Your task to perform on an android device: What's the weather going to be this weekend? Image 0: 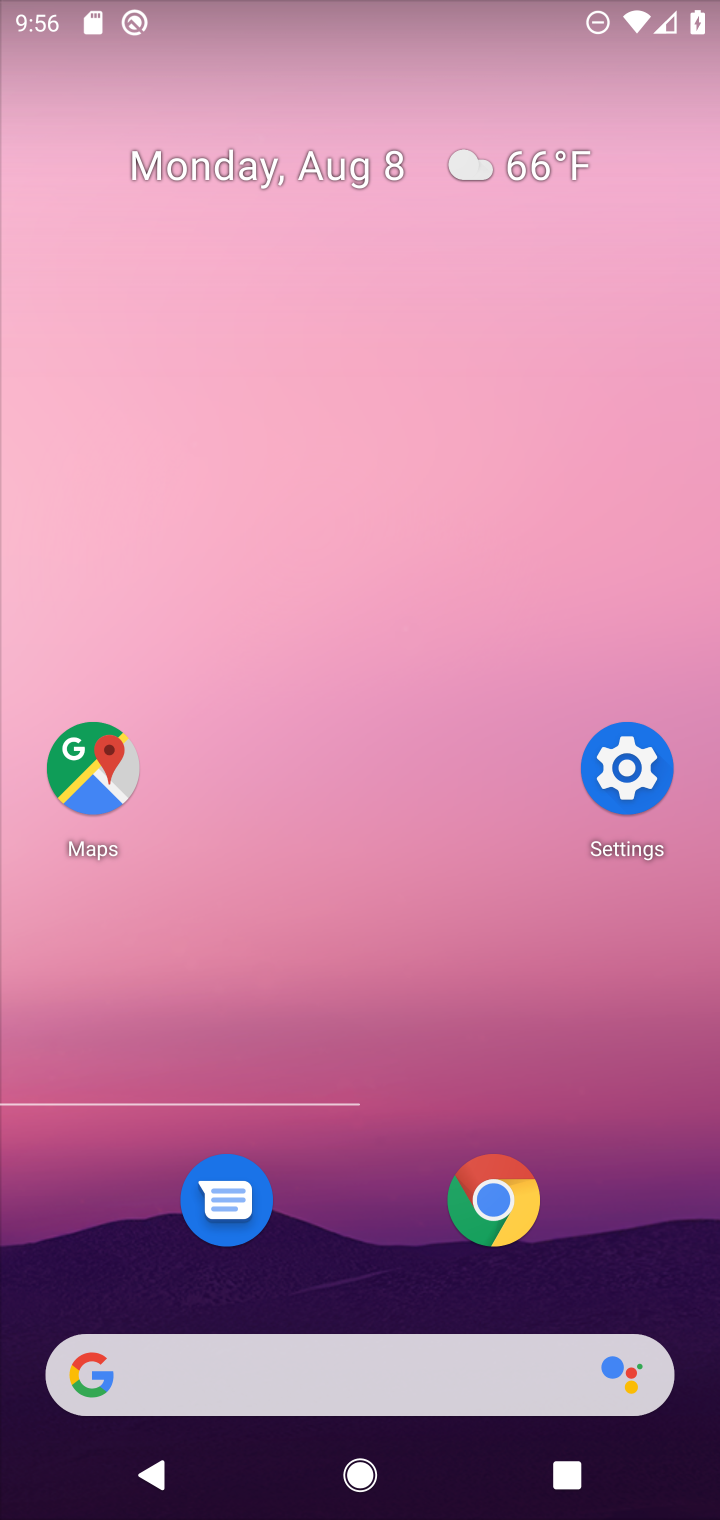
Step 0: press home button
Your task to perform on an android device: What's the weather going to be this weekend? Image 1: 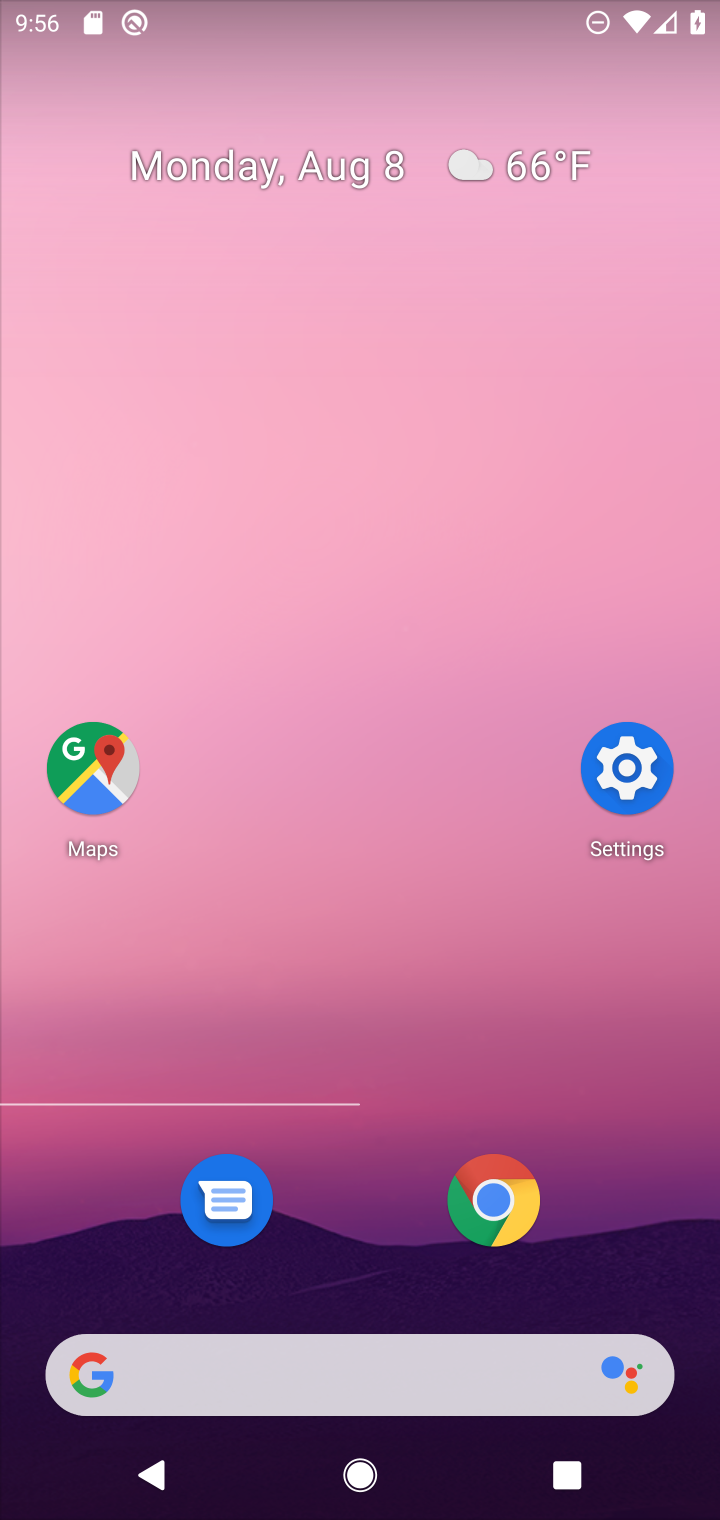
Step 1: click (260, 1385)
Your task to perform on an android device: What's the weather going to be this weekend? Image 2: 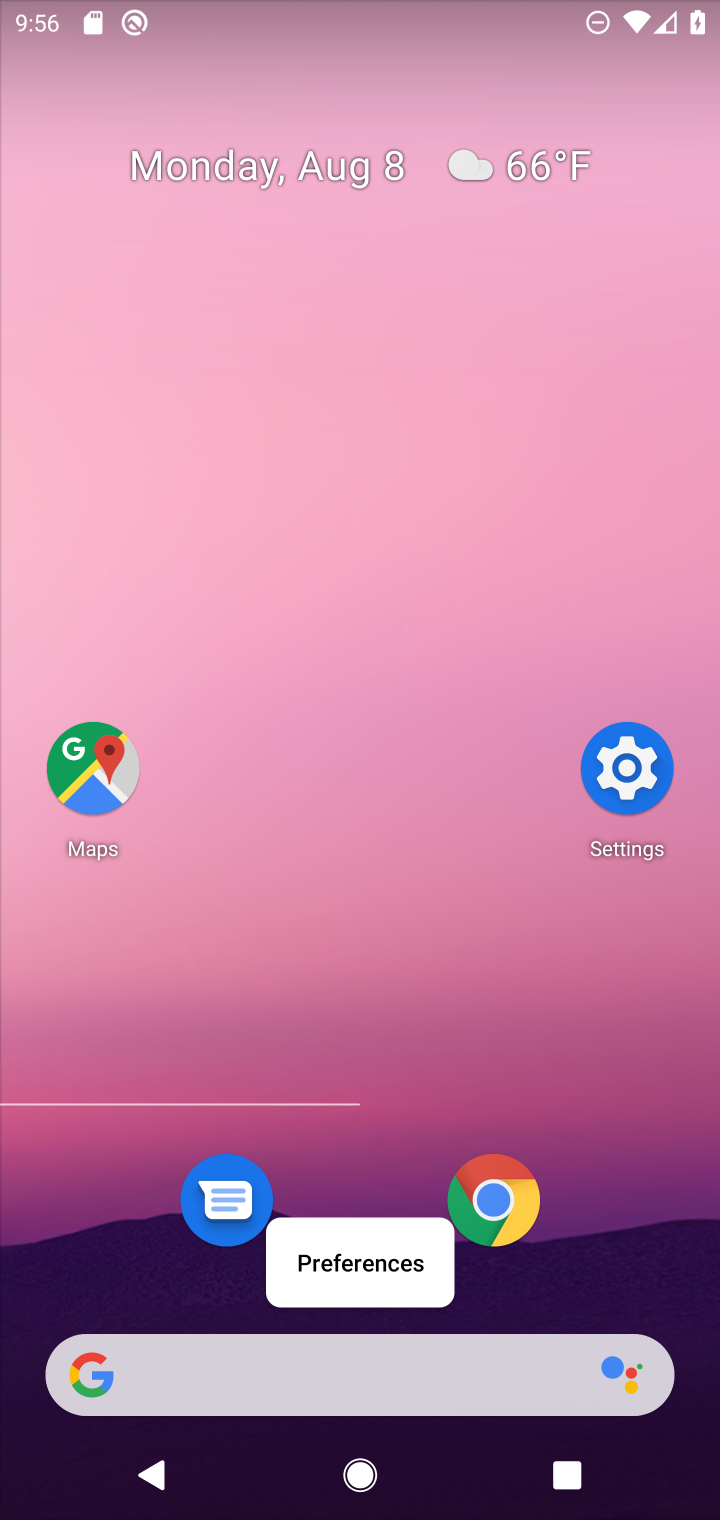
Step 2: click (238, 1374)
Your task to perform on an android device: What's the weather going to be this weekend? Image 3: 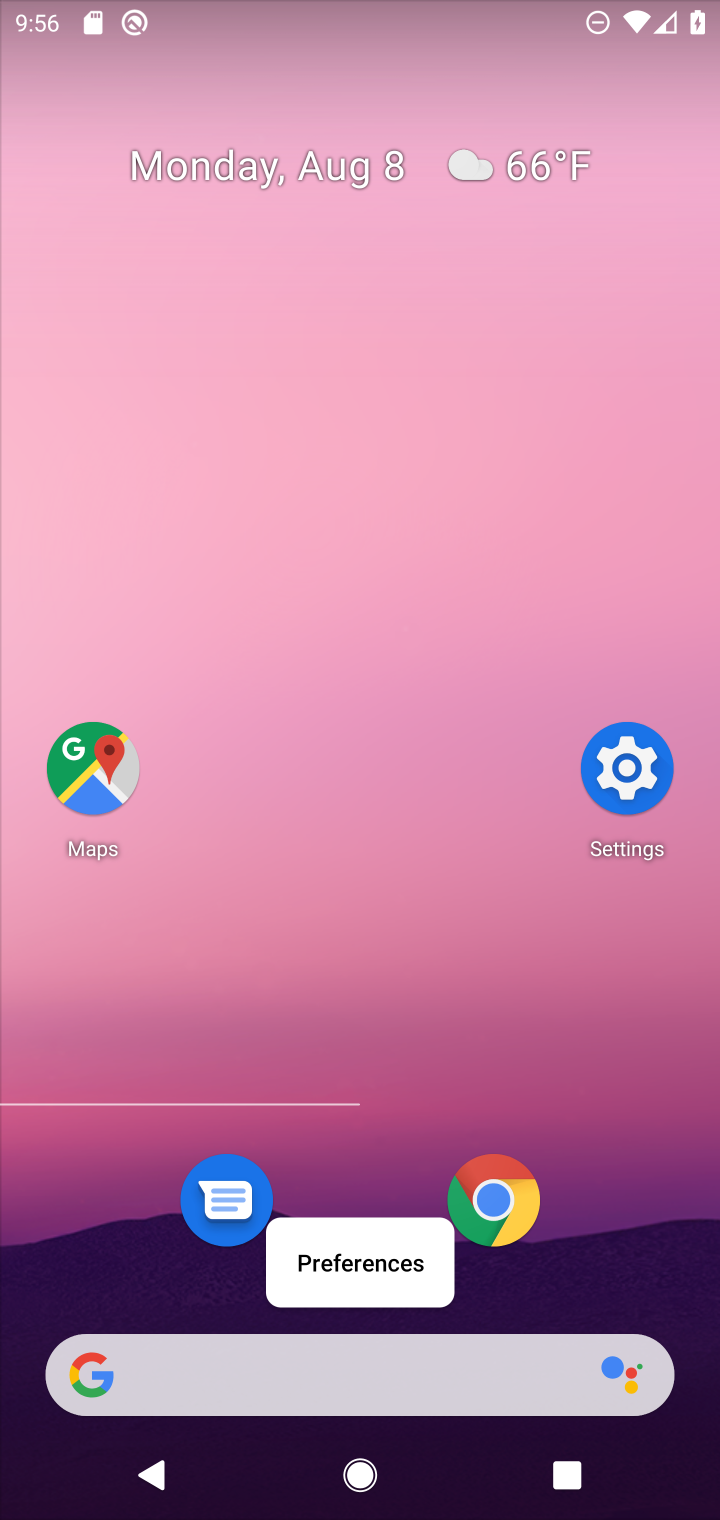
Step 3: click (229, 1363)
Your task to perform on an android device: What's the weather going to be this weekend? Image 4: 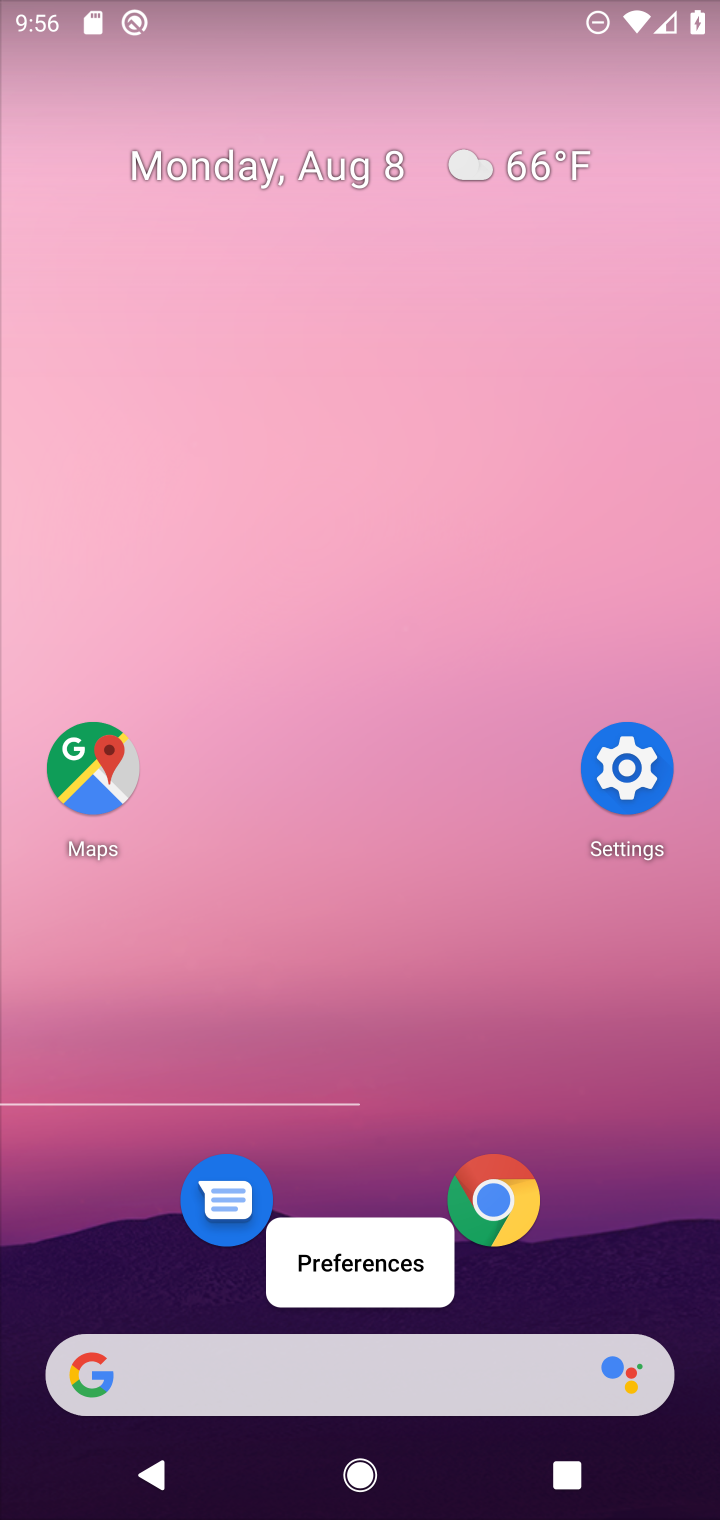
Step 4: click (299, 1359)
Your task to perform on an android device: What's the weather going to be this weekend? Image 5: 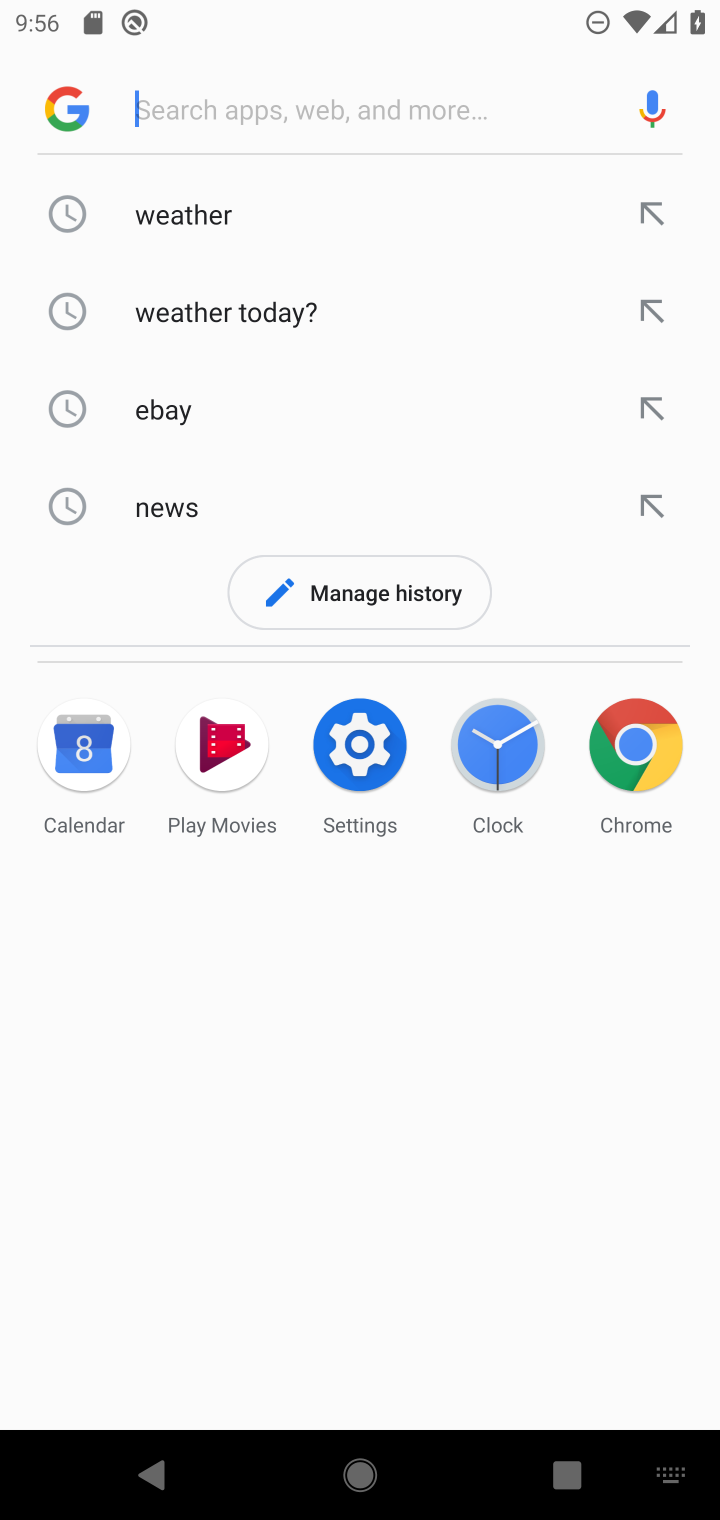
Step 5: click (191, 208)
Your task to perform on an android device: What's the weather going to be this weekend? Image 6: 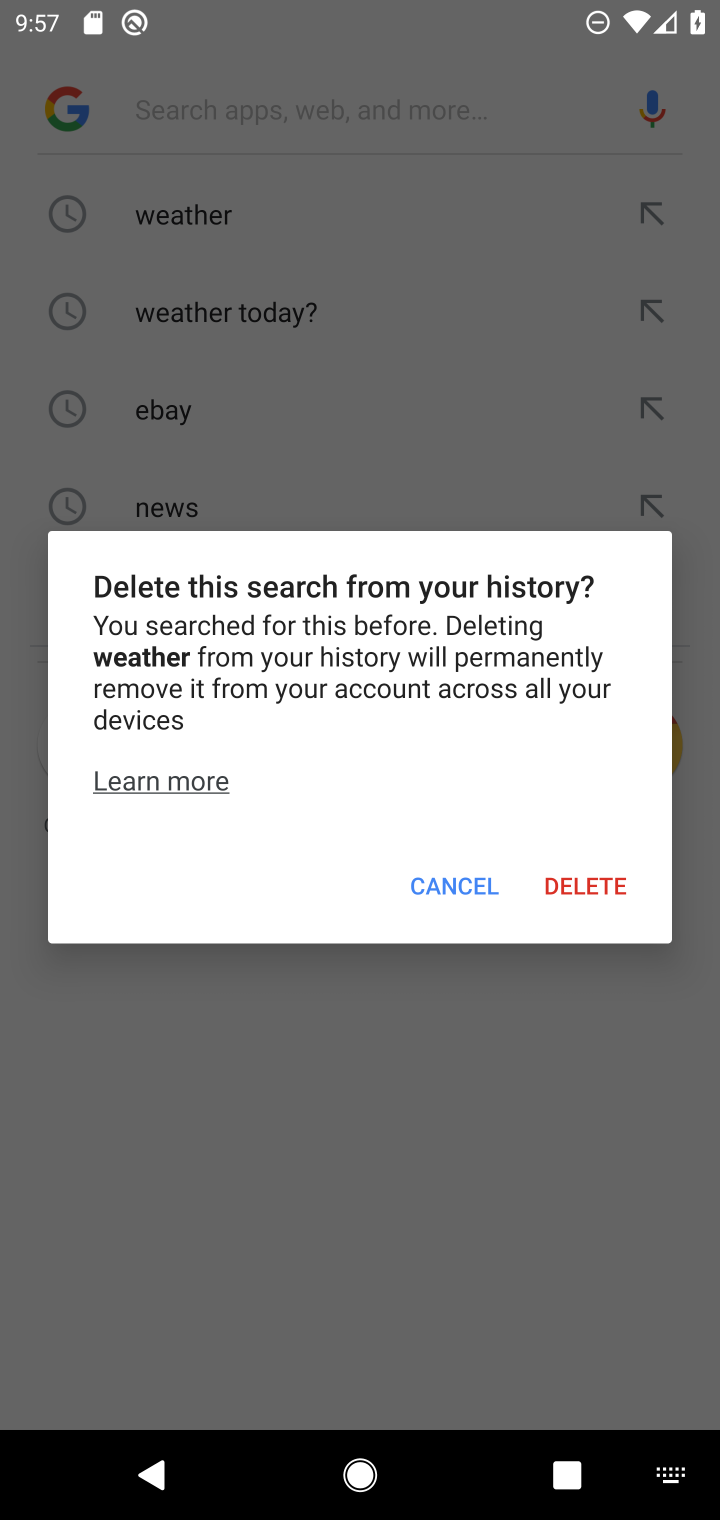
Step 6: click (415, 894)
Your task to perform on an android device: What's the weather going to be this weekend? Image 7: 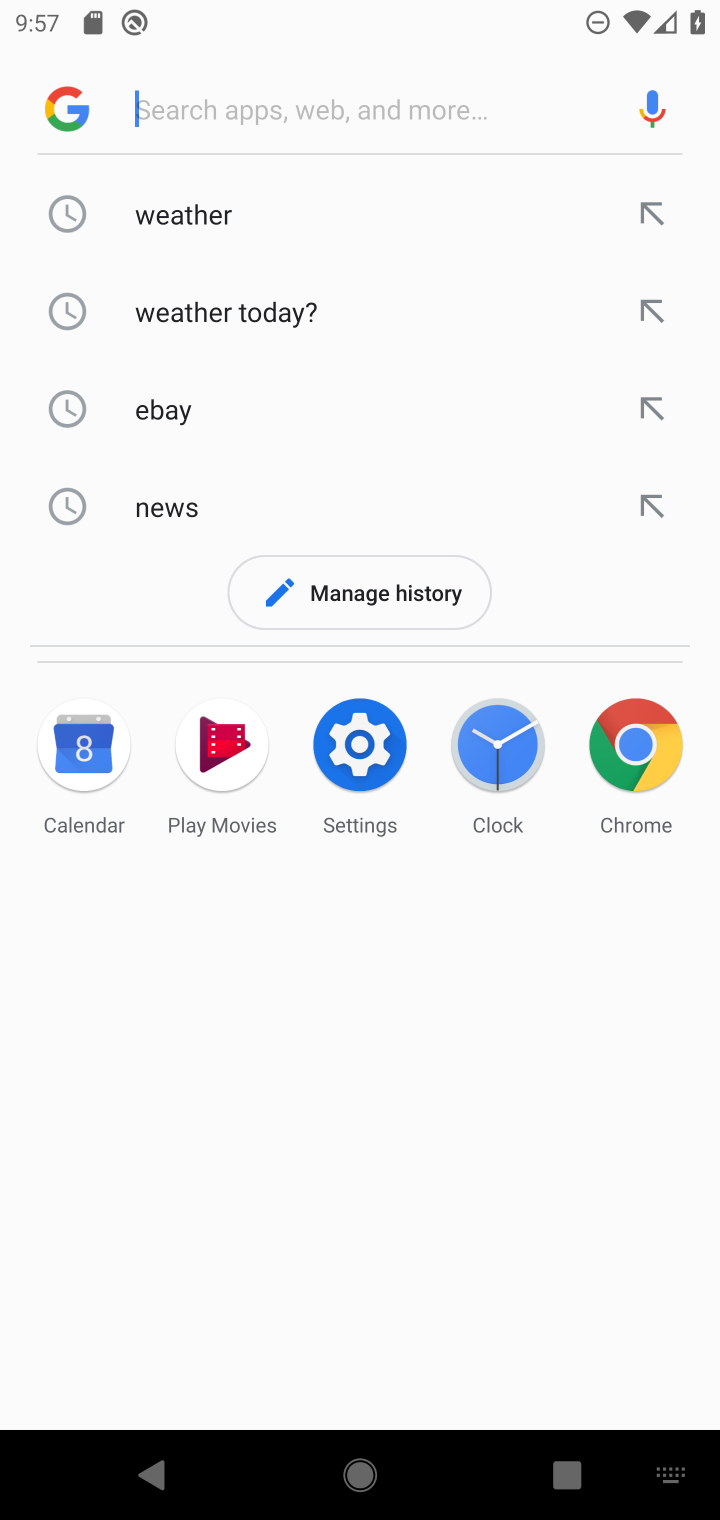
Step 7: click (654, 210)
Your task to perform on an android device: What's the weather going to be this weekend? Image 8: 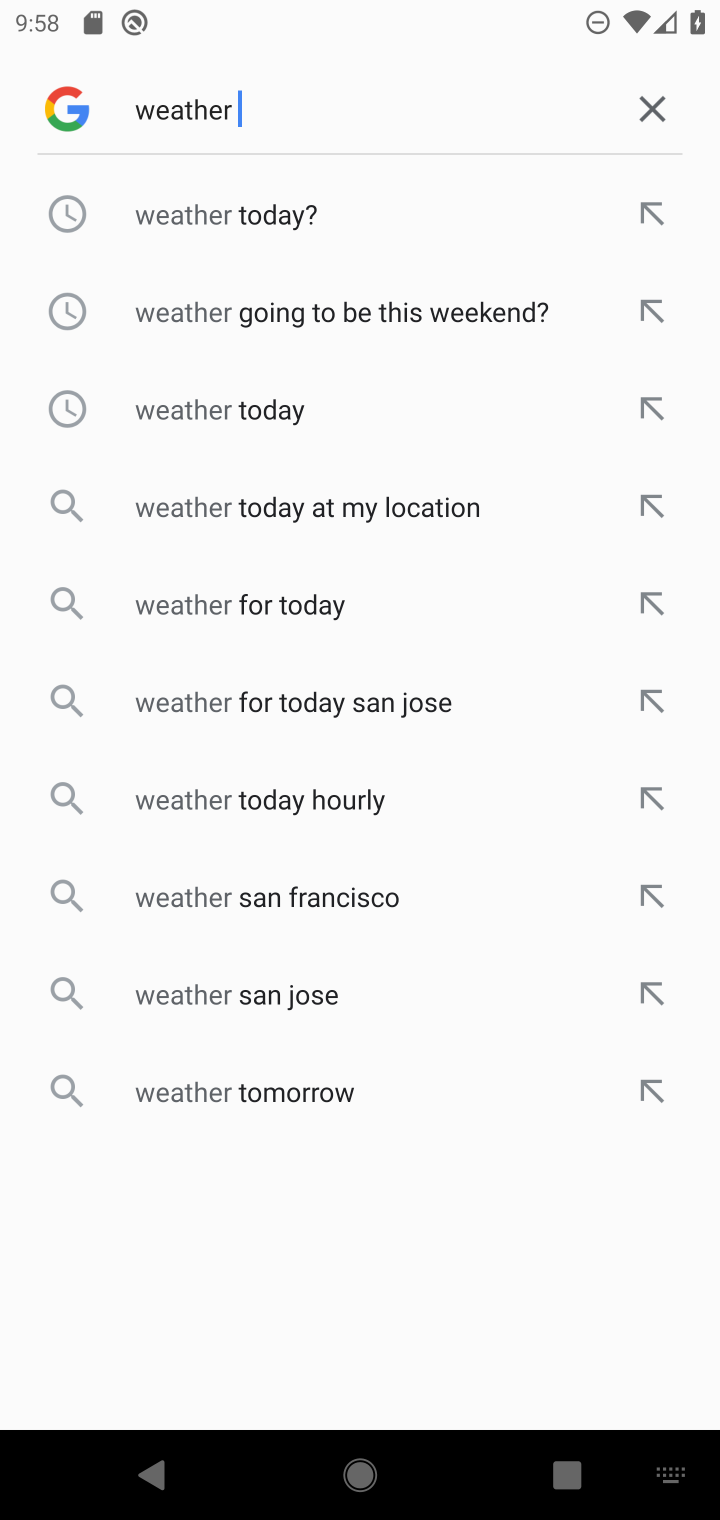
Step 8: click (648, 304)
Your task to perform on an android device: What's the weather going to be this weekend? Image 9: 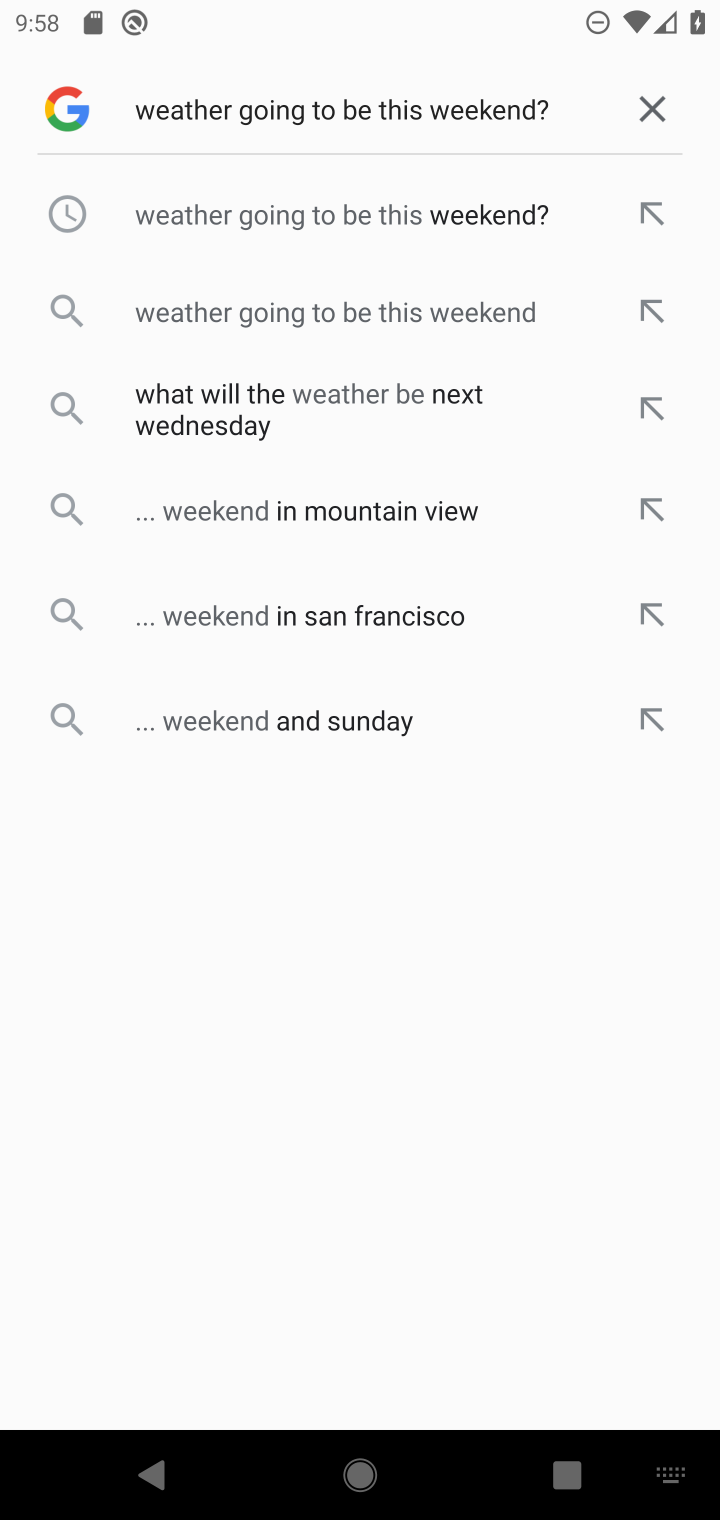
Step 9: click (483, 299)
Your task to perform on an android device: What's the weather going to be this weekend? Image 10: 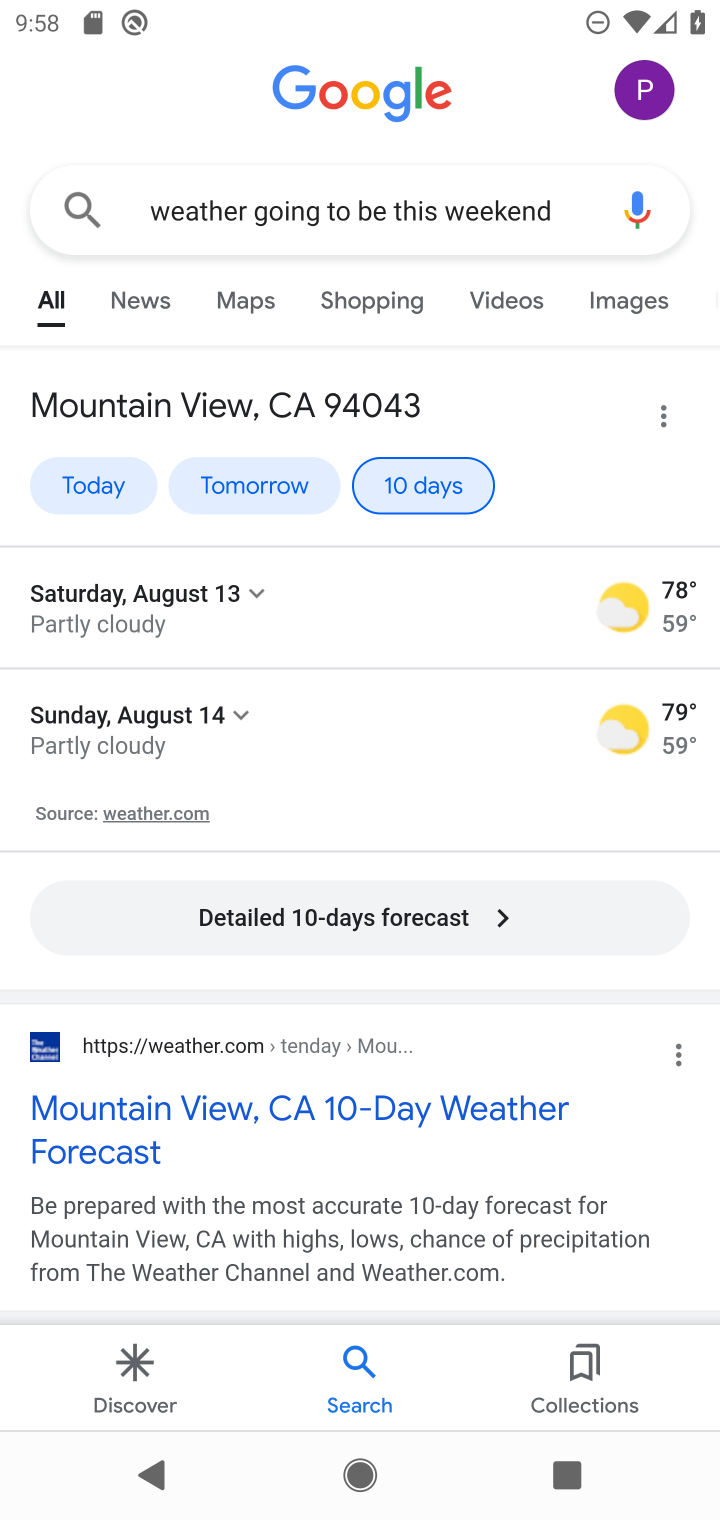
Step 10: task complete